Your task to perform on an android device: turn on wifi Image 0: 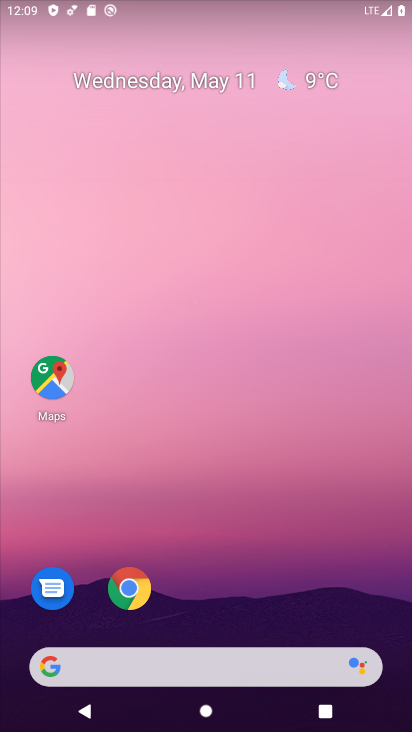
Step 0: drag from (305, 479) to (305, 11)
Your task to perform on an android device: turn on wifi Image 1: 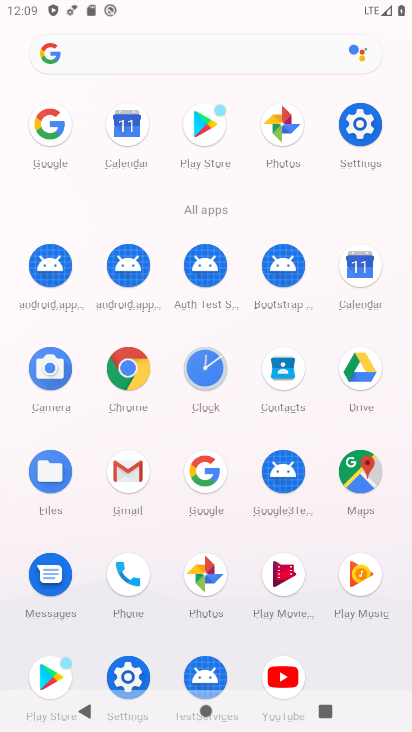
Step 1: click (365, 128)
Your task to perform on an android device: turn on wifi Image 2: 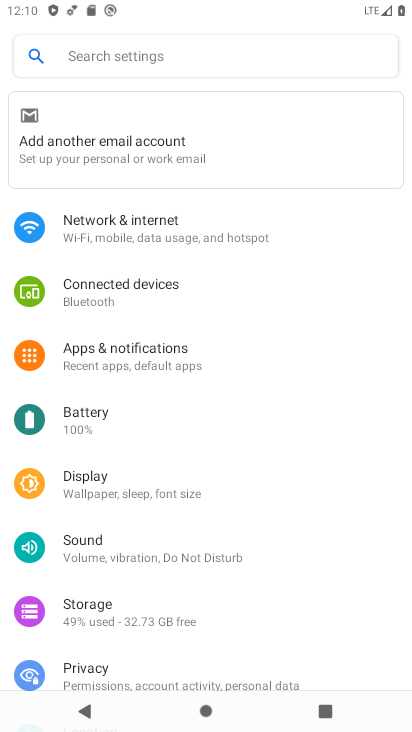
Step 2: click (111, 243)
Your task to perform on an android device: turn on wifi Image 3: 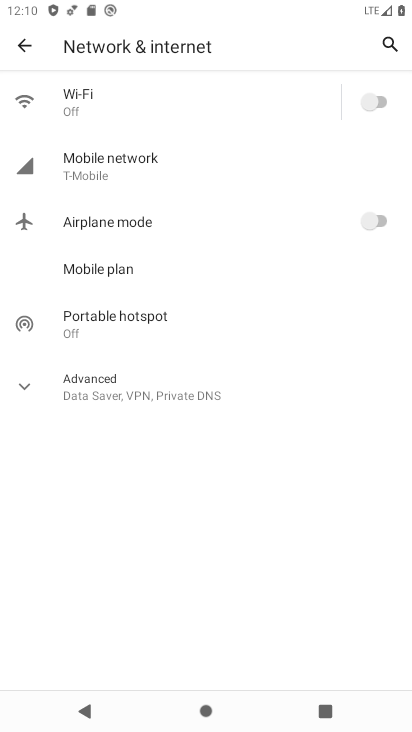
Step 3: click (378, 106)
Your task to perform on an android device: turn on wifi Image 4: 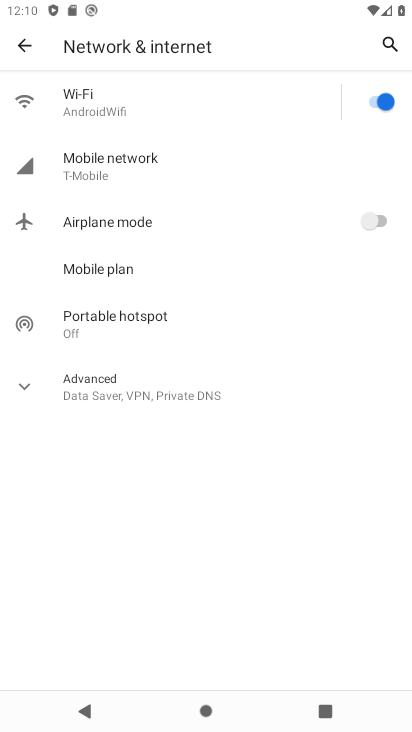
Step 4: task complete